Your task to perform on an android device: set the timer Image 0: 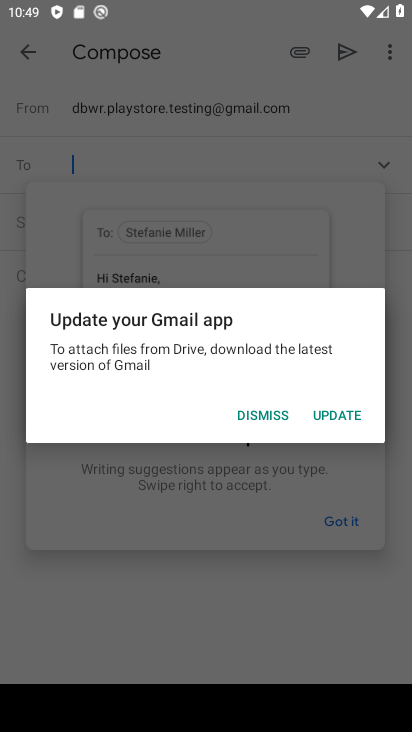
Step 0: press home button
Your task to perform on an android device: set the timer Image 1: 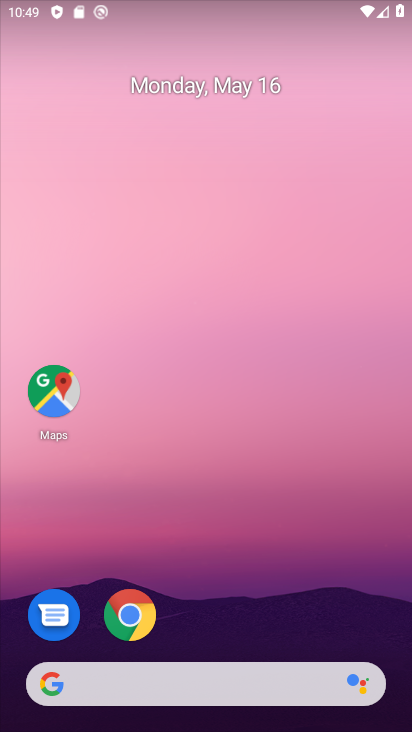
Step 1: drag from (257, 567) to (264, 119)
Your task to perform on an android device: set the timer Image 2: 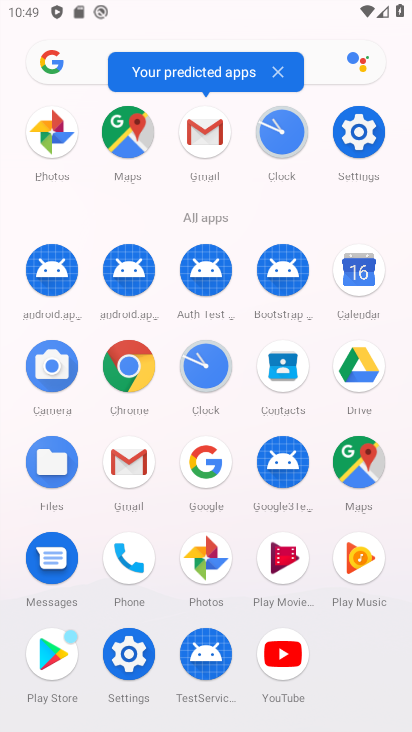
Step 2: click (290, 146)
Your task to perform on an android device: set the timer Image 3: 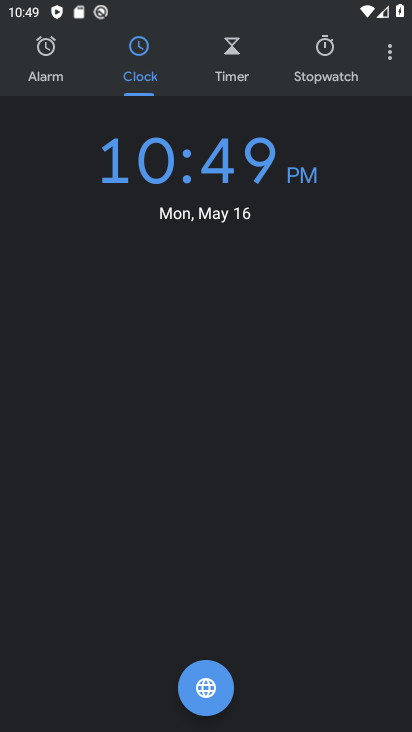
Step 3: click (224, 65)
Your task to perform on an android device: set the timer Image 4: 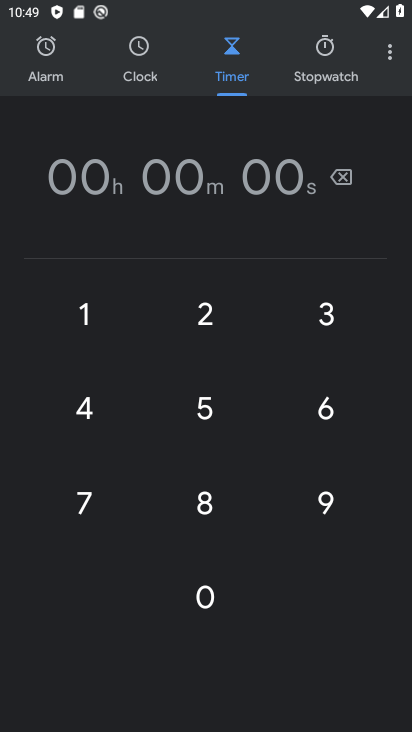
Step 4: click (202, 501)
Your task to perform on an android device: set the timer Image 5: 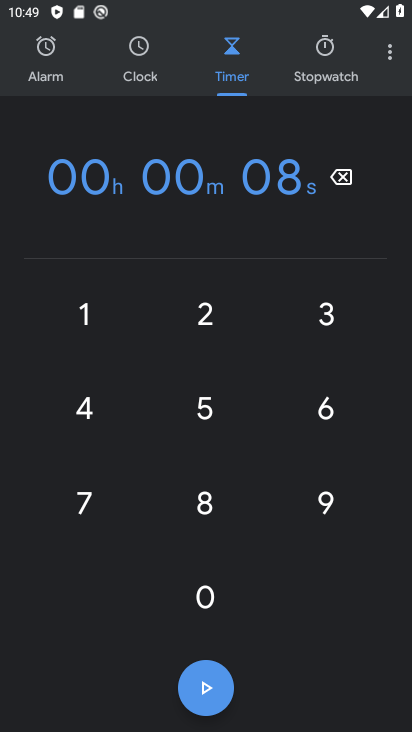
Step 5: click (199, 413)
Your task to perform on an android device: set the timer Image 6: 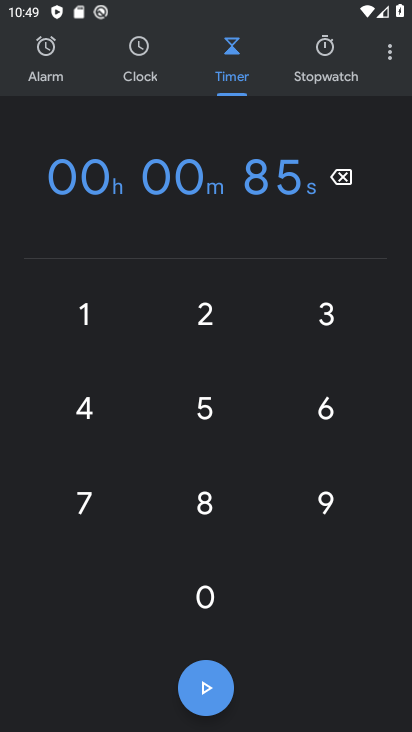
Step 6: click (330, 407)
Your task to perform on an android device: set the timer Image 7: 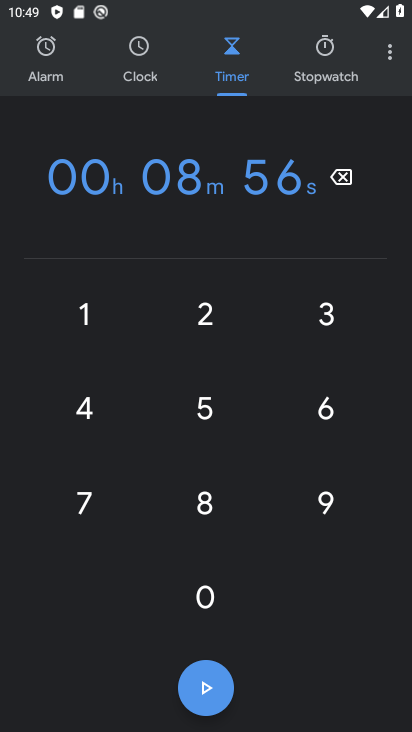
Step 7: task complete